Your task to perform on an android device: turn on showing notifications on the lock screen Image 0: 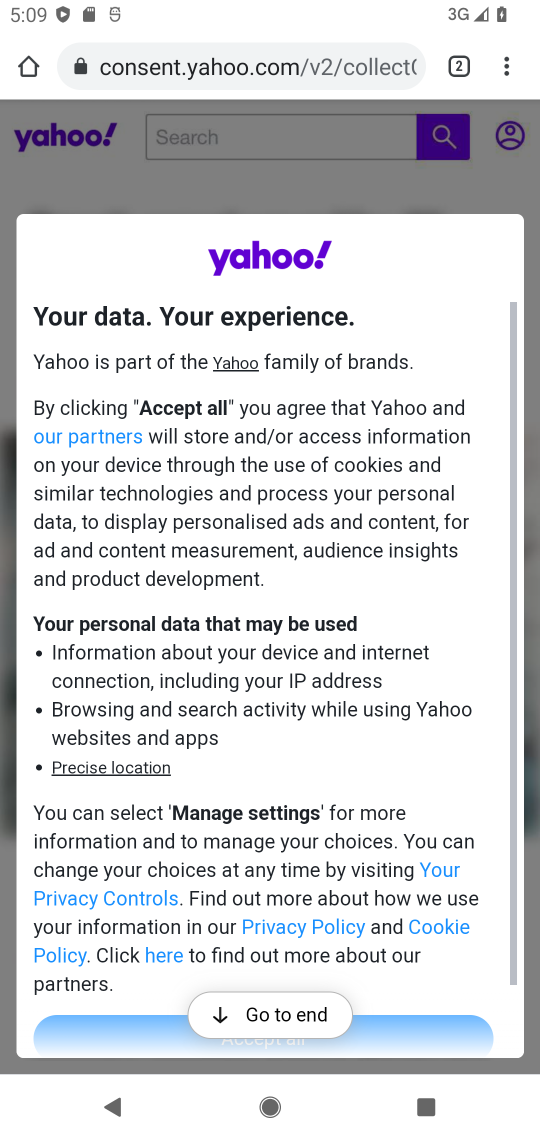
Step 0: press home button
Your task to perform on an android device: turn on showing notifications on the lock screen Image 1: 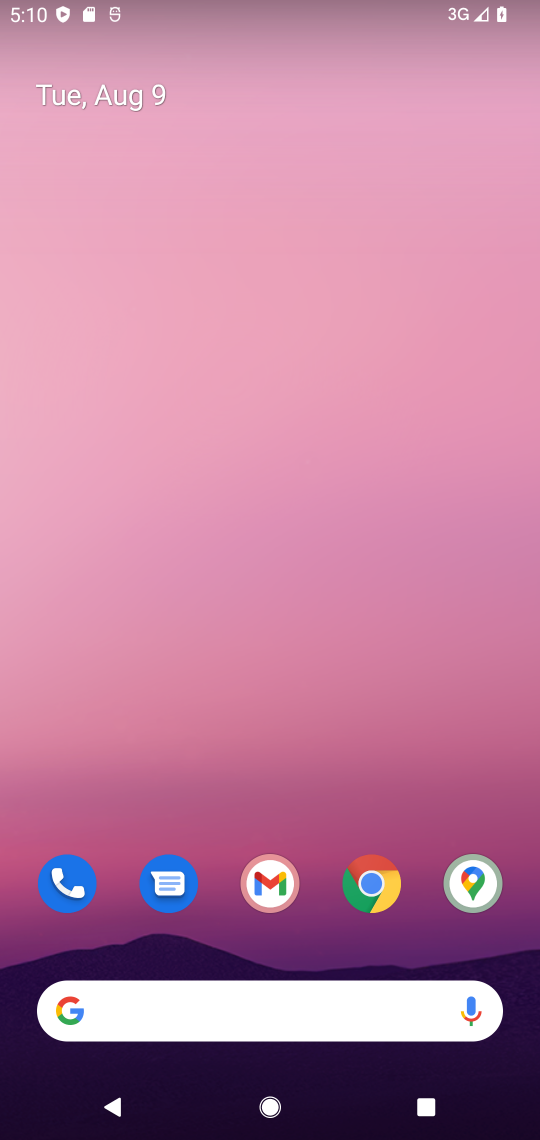
Step 1: drag from (275, 688) to (254, 226)
Your task to perform on an android device: turn on showing notifications on the lock screen Image 2: 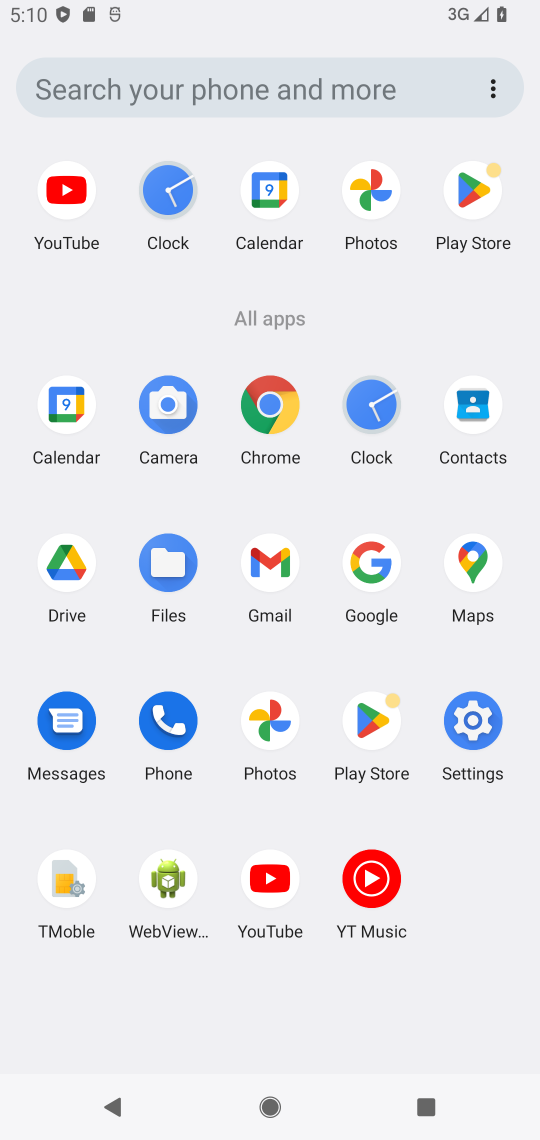
Step 2: click (468, 703)
Your task to perform on an android device: turn on showing notifications on the lock screen Image 3: 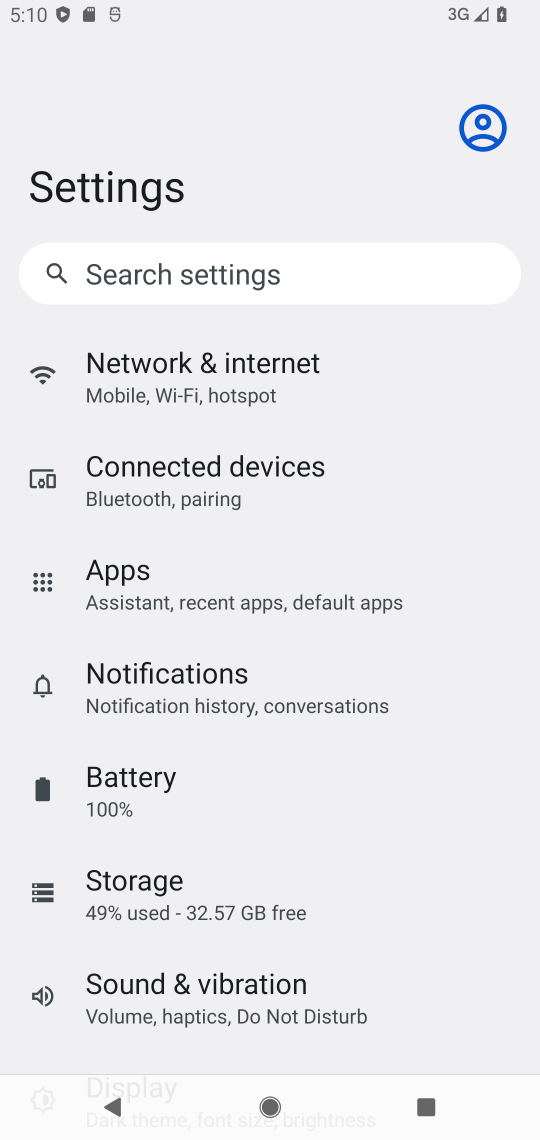
Step 3: click (308, 668)
Your task to perform on an android device: turn on showing notifications on the lock screen Image 4: 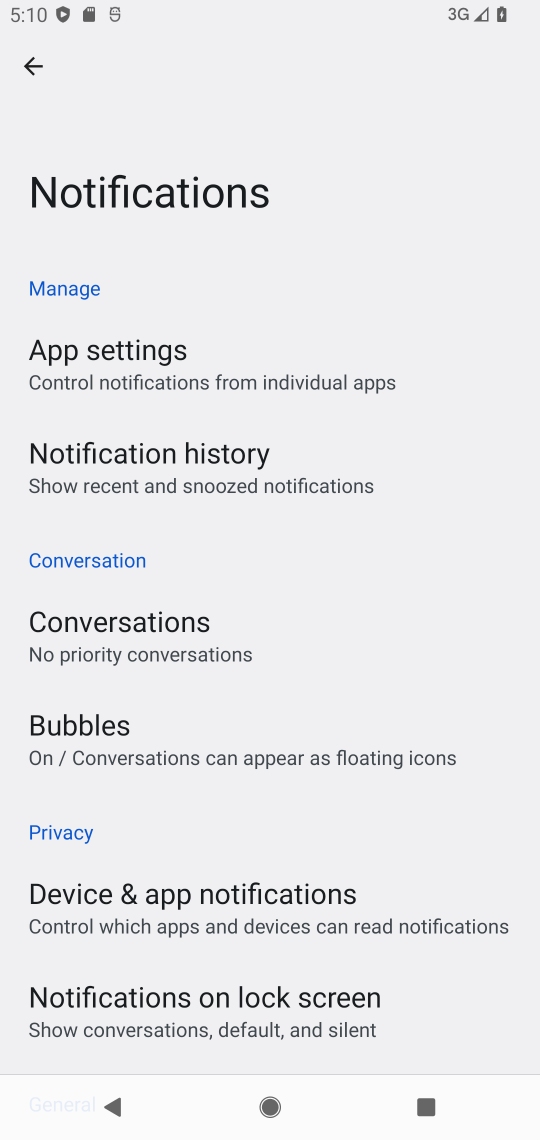
Step 4: click (317, 1000)
Your task to perform on an android device: turn on showing notifications on the lock screen Image 5: 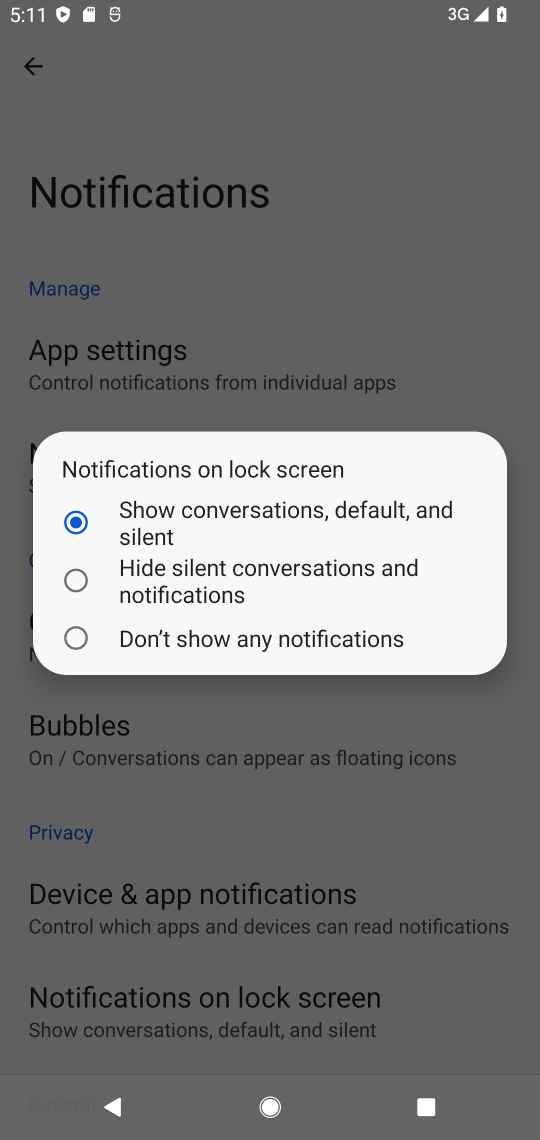
Step 5: task complete